Your task to perform on an android device: What's on my calendar tomorrow? Image 0: 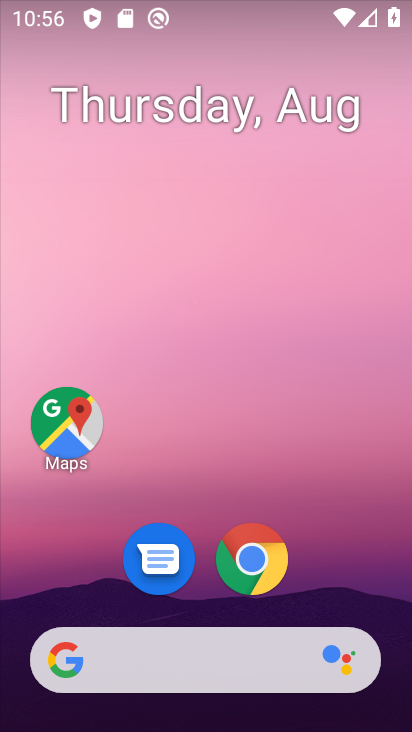
Step 0: drag from (369, 384) to (278, 108)
Your task to perform on an android device: What's on my calendar tomorrow? Image 1: 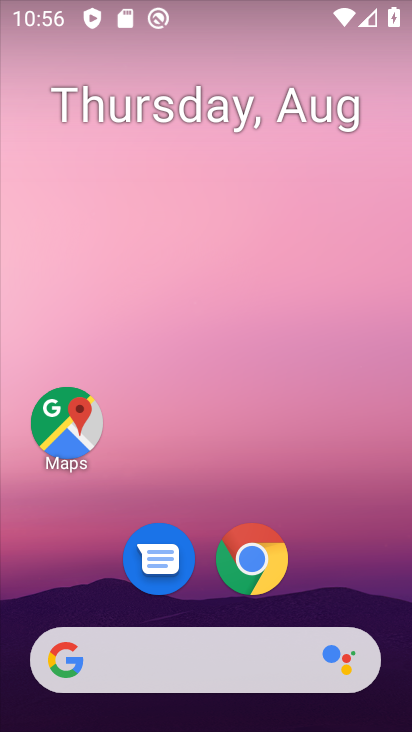
Step 1: drag from (330, 578) to (272, 228)
Your task to perform on an android device: What's on my calendar tomorrow? Image 2: 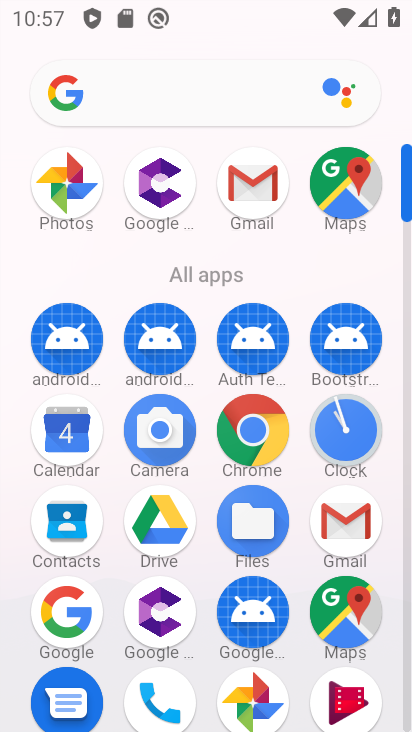
Step 2: click (80, 437)
Your task to perform on an android device: What's on my calendar tomorrow? Image 3: 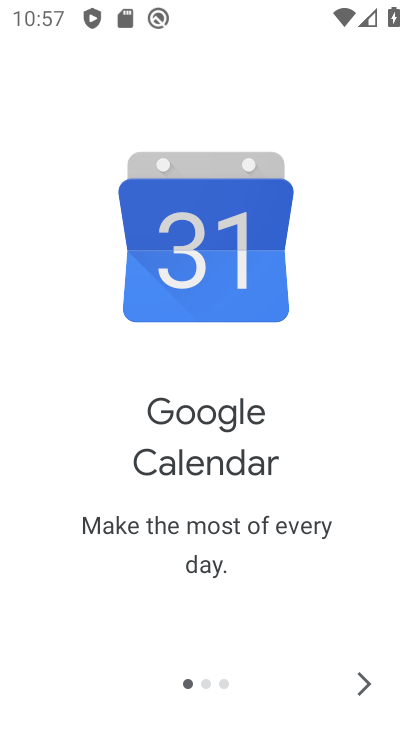
Step 3: click (375, 679)
Your task to perform on an android device: What's on my calendar tomorrow? Image 4: 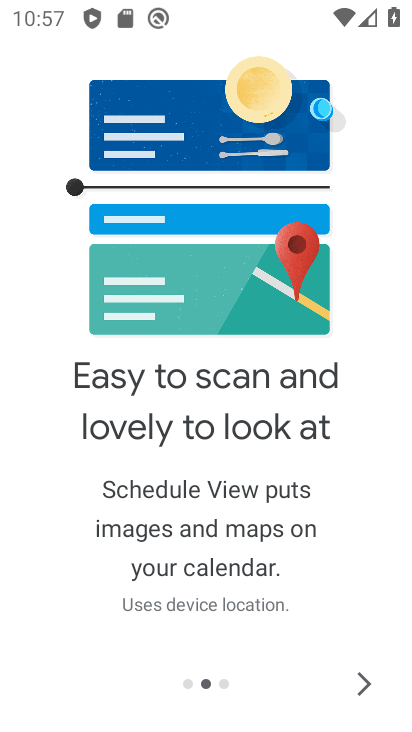
Step 4: click (362, 673)
Your task to perform on an android device: What's on my calendar tomorrow? Image 5: 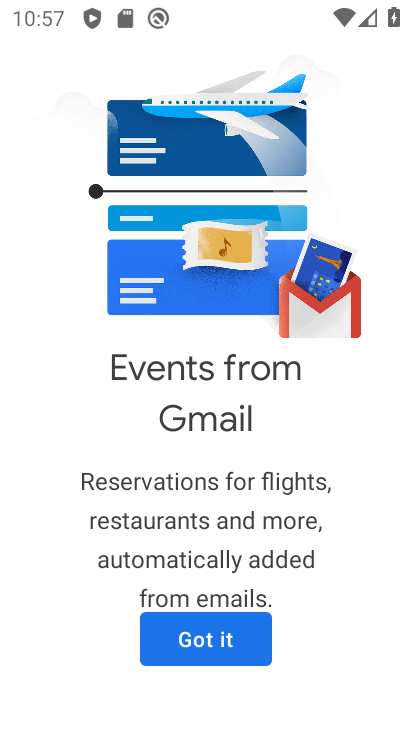
Step 5: click (231, 653)
Your task to perform on an android device: What's on my calendar tomorrow? Image 6: 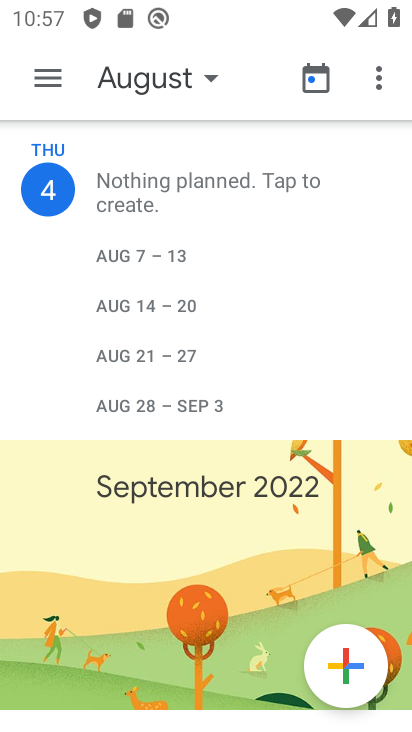
Step 6: click (54, 85)
Your task to perform on an android device: What's on my calendar tomorrow? Image 7: 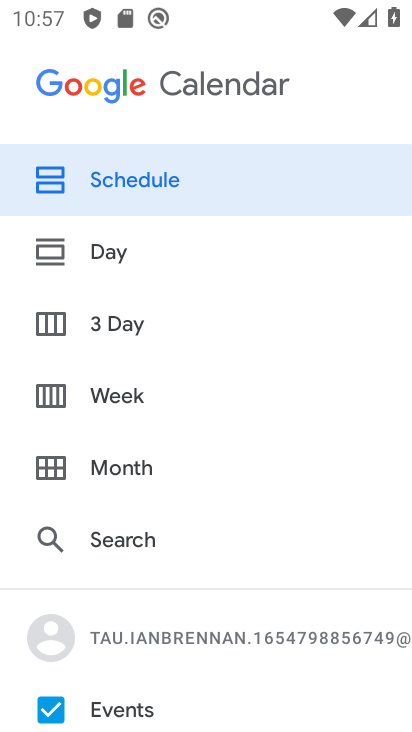
Step 7: click (159, 250)
Your task to perform on an android device: What's on my calendar tomorrow? Image 8: 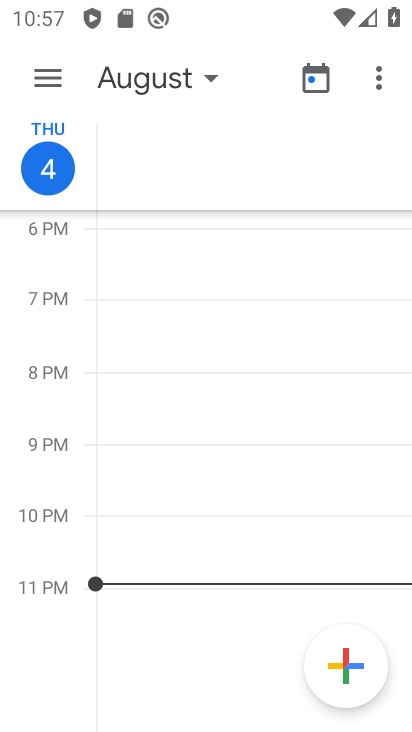
Step 8: click (165, 86)
Your task to perform on an android device: What's on my calendar tomorrow? Image 9: 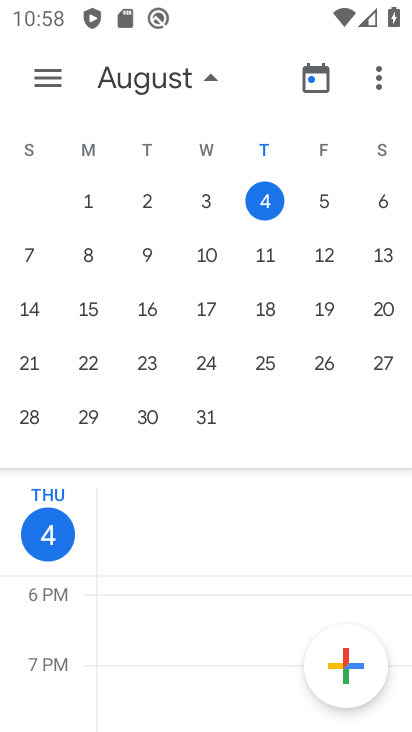
Step 9: click (320, 199)
Your task to perform on an android device: What's on my calendar tomorrow? Image 10: 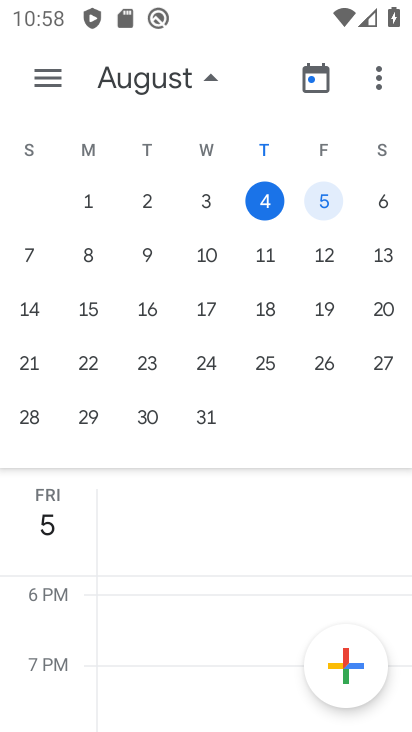
Step 10: task complete